Your task to perform on an android device: open chrome and create a bookmark for the current page Image 0: 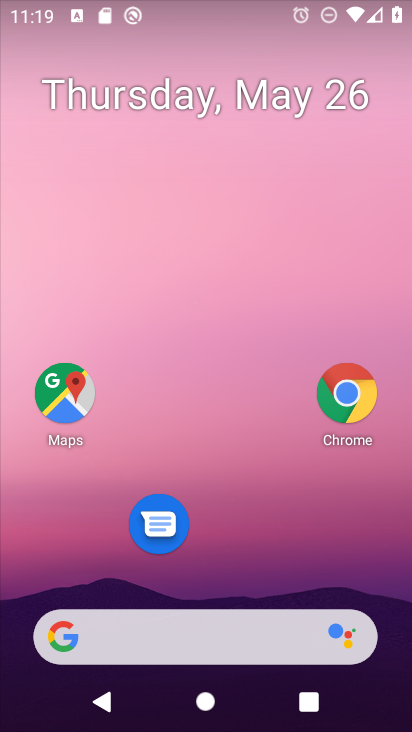
Step 0: click (358, 388)
Your task to perform on an android device: open chrome and create a bookmark for the current page Image 1: 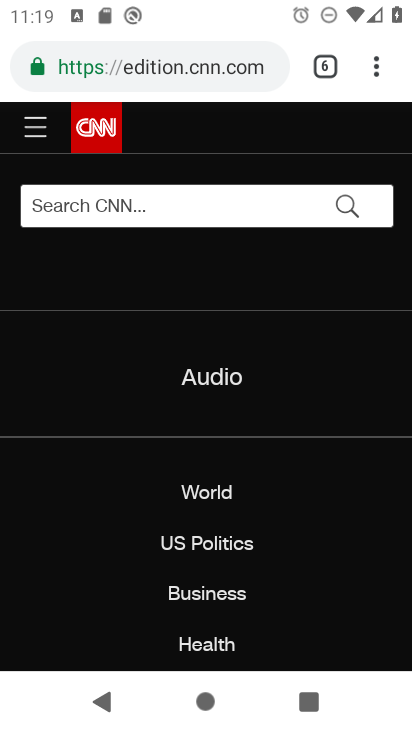
Step 1: click (378, 62)
Your task to perform on an android device: open chrome and create a bookmark for the current page Image 2: 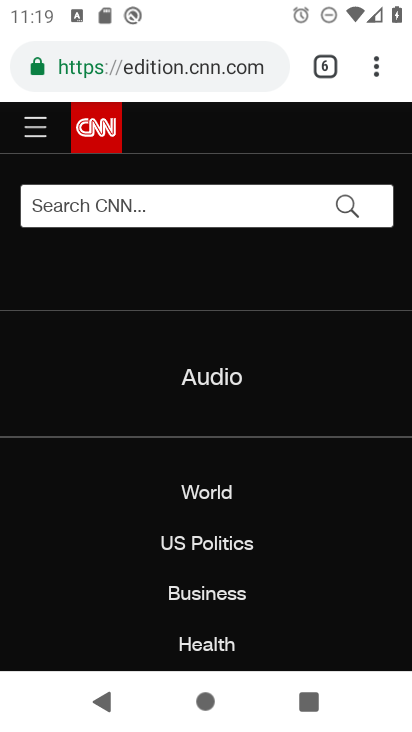
Step 2: task complete